Your task to perform on an android device: Open the stopwatch Image 0: 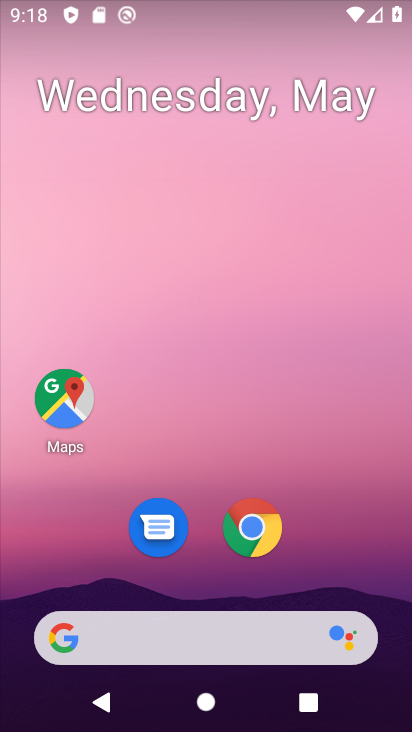
Step 0: drag from (361, 573) to (342, 176)
Your task to perform on an android device: Open the stopwatch Image 1: 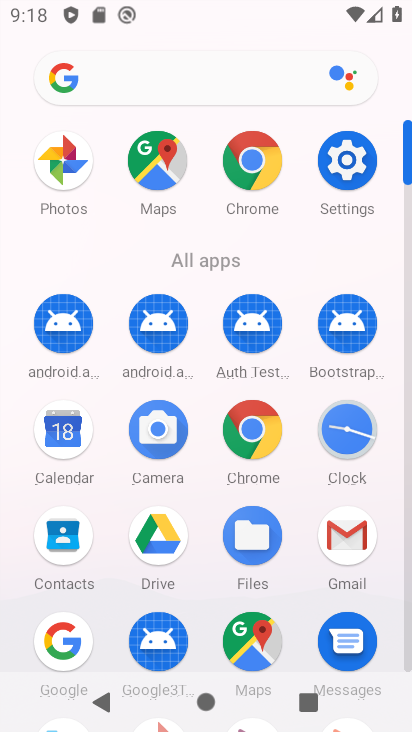
Step 1: click (357, 429)
Your task to perform on an android device: Open the stopwatch Image 2: 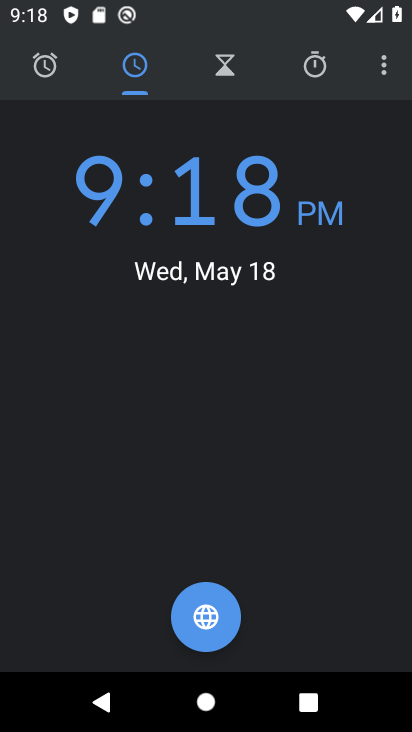
Step 2: click (321, 58)
Your task to perform on an android device: Open the stopwatch Image 3: 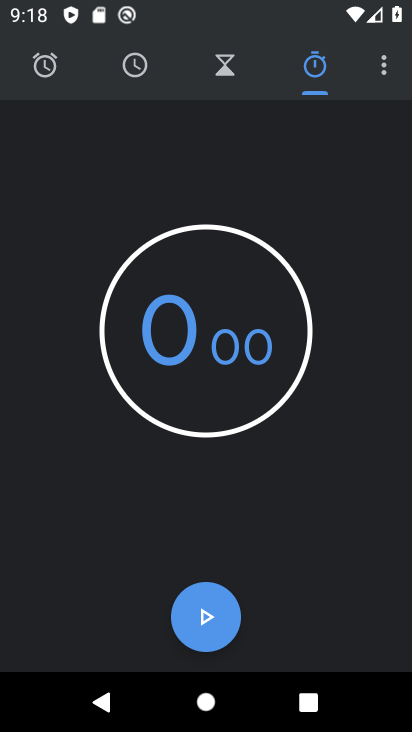
Step 3: click (208, 624)
Your task to perform on an android device: Open the stopwatch Image 4: 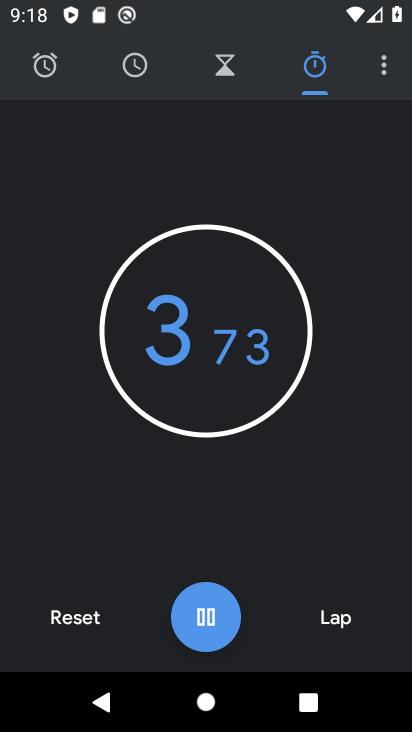
Step 4: task complete